Your task to perform on an android device: add a label to a message in the gmail app Image 0: 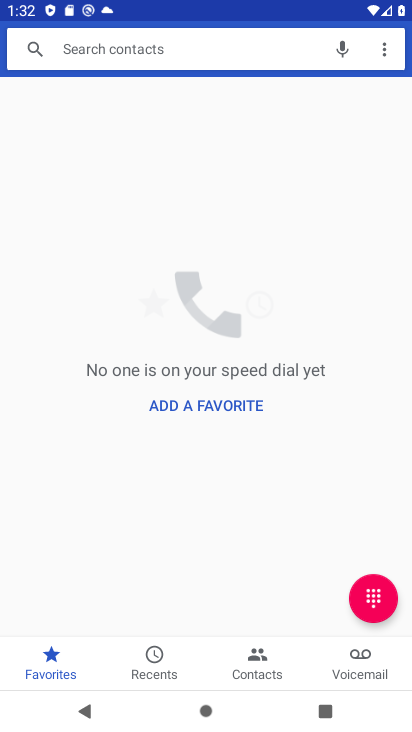
Step 0: press home button
Your task to perform on an android device: add a label to a message in the gmail app Image 1: 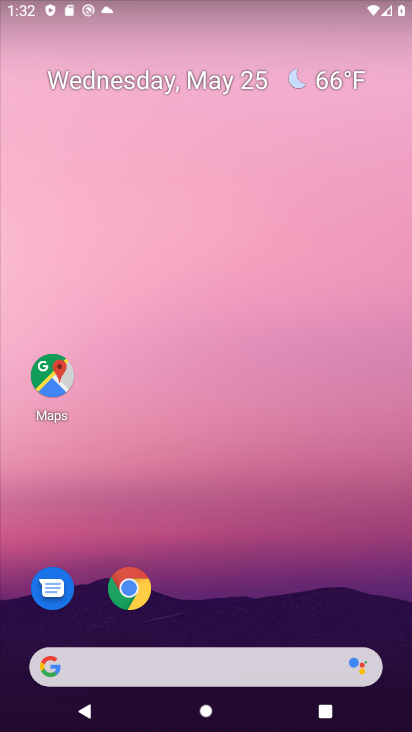
Step 1: drag from (239, 611) to (257, 25)
Your task to perform on an android device: add a label to a message in the gmail app Image 2: 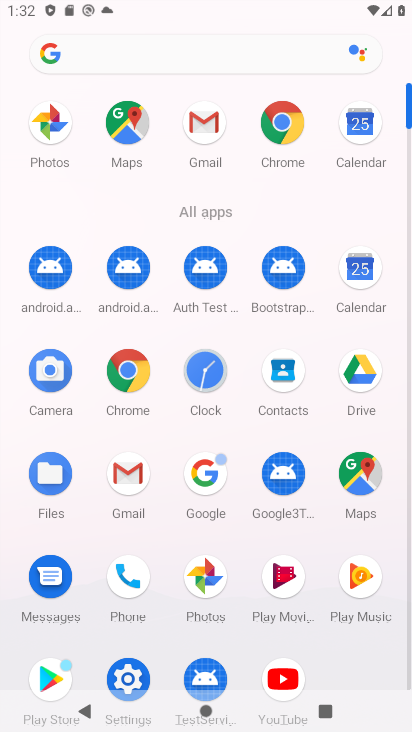
Step 2: click (193, 118)
Your task to perform on an android device: add a label to a message in the gmail app Image 3: 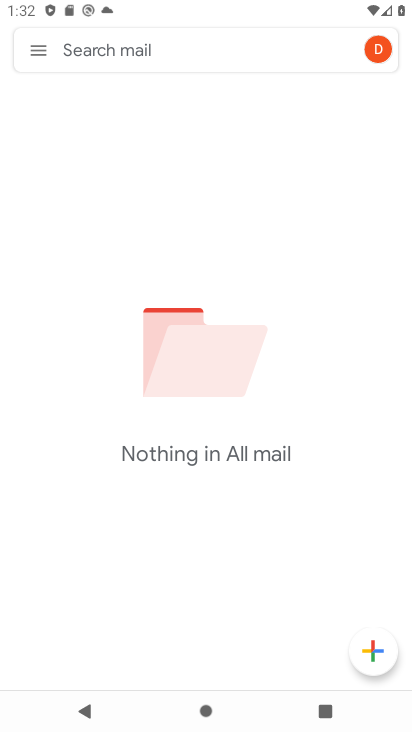
Step 3: click (30, 47)
Your task to perform on an android device: add a label to a message in the gmail app Image 4: 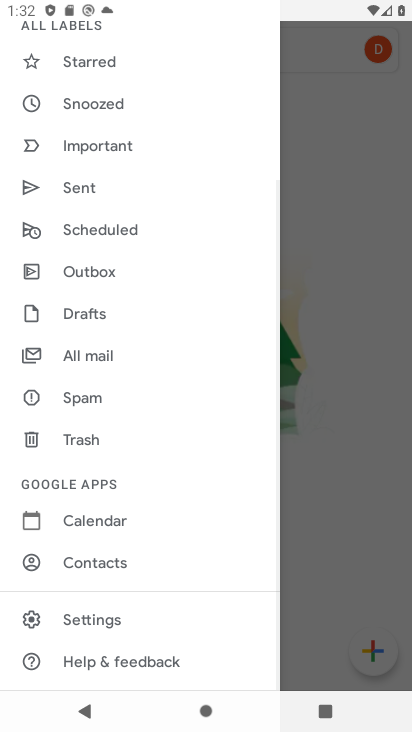
Step 4: click (97, 350)
Your task to perform on an android device: add a label to a message in the gmail app Image 5: 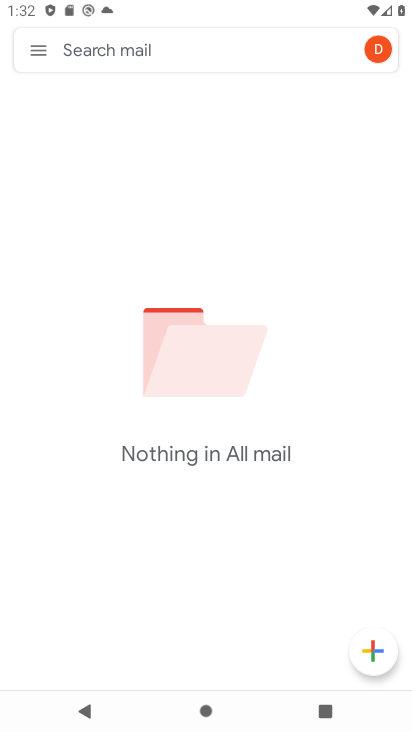
Step 5: task complete